Your task to perform on an android device: move an email to a new category in the gmail app Image 0: 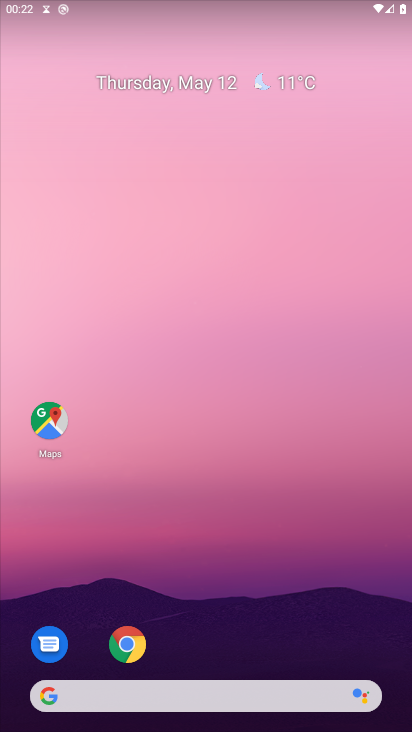
Step 0: drag from (231, 646) to (273, 68)
Your task to perform on an android device: move an email to a new category in the gmail app Image 1: 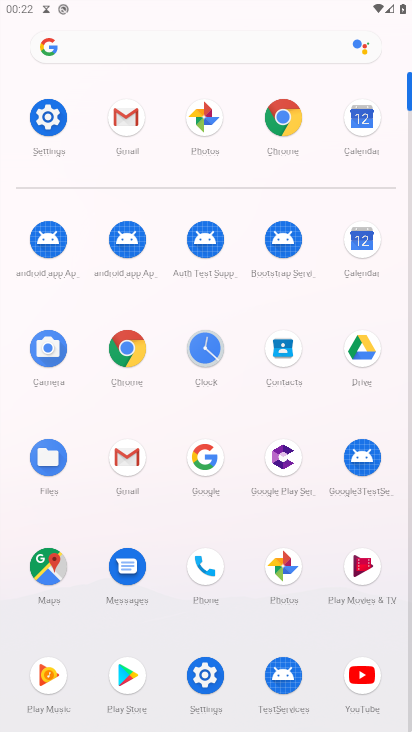
Step 1: click (121, 450)
Your task to perform on an android device: move an email to a new category in the gmail app Image 2: 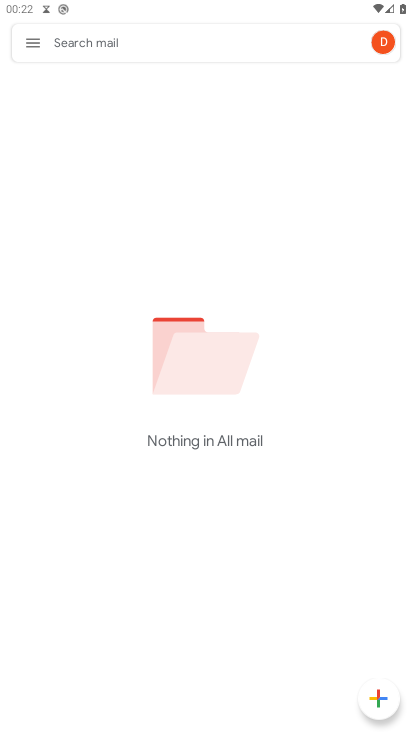
Step 2: task complete